Your task to perform on an android device: open app "DuckDuckGo Privacy Browser" (install if not already installed) Image 0: 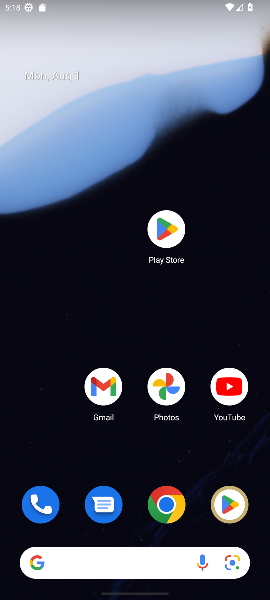
Step 0: press home button
Your task to perform on an android device: open app "DuckDuckGo Privacy Browser" (install if not already installed) Image 1: 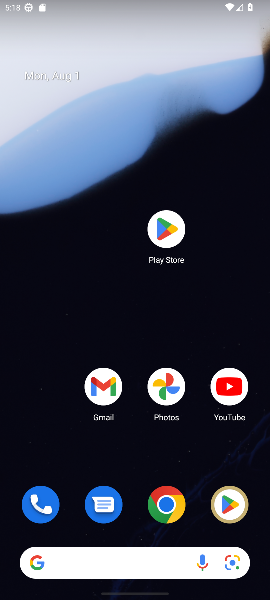
Step 1: click (165, 228)
Your task to perform on an android device: open app "DuckDuckGo Privacy Browser" (install if not already installed) Image 2: 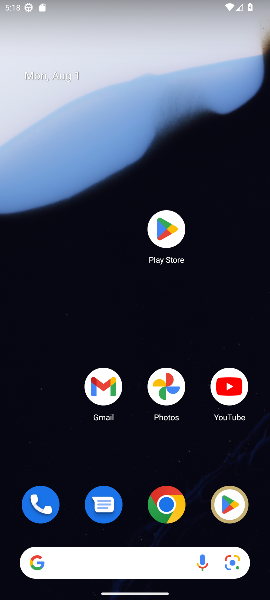
Step 2: click (165, 228)
Your task to perform on an android device: open app "DuckDuckGo Privacy Browser" (install if not already installed) Image 3: 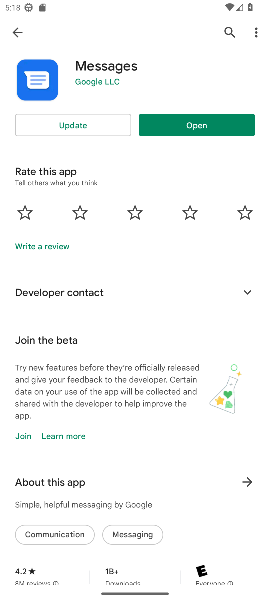
Step 3: click (227, 29)
Your task to perform on an android device: open app "DuckDuckGo Privacy Browser" (install if not already installed) Image 4: 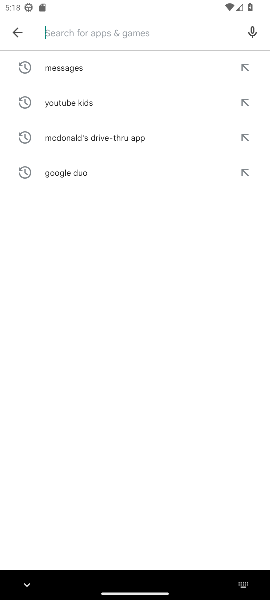
Step 4: type "DuckDuckGo Privacy Browser"
Your task to perform on an android device: open app "DuckDuckGo Privacy Browser" (install if not already installed) Image 5: 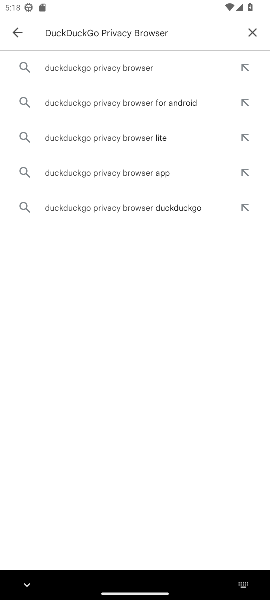
Step 5: click (143, 70)
Your task to perform on an android device: open app "DuckDuckGo Privacy Browser" (install if not already installed) Image 6: 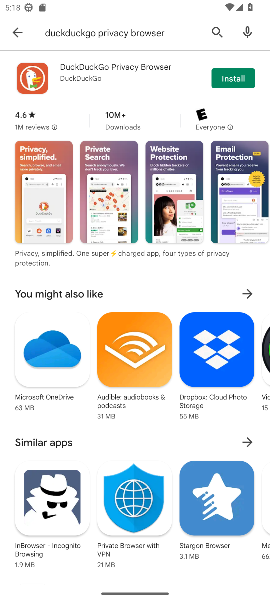
Step 6: click (223, 78)
Your task to perform on an android device: open app "DuckDuckGo Privacy Browser" (install if not already installed) Image 7: 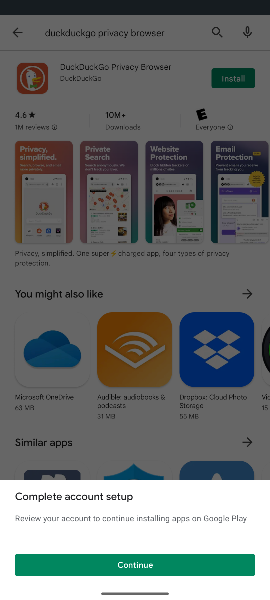
Step 7: click (130, 562)
Your task to perform on an android device: open app "DuckDuckGo Privacy Browser" (install if not already installed) Image 8: 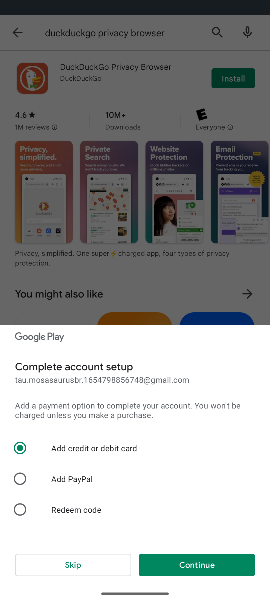
Step 8: click (80, 566)
Your task to perform on an android device: open app "DuckDuckGo Privacy Browser" (install if not already installed) Image 9: 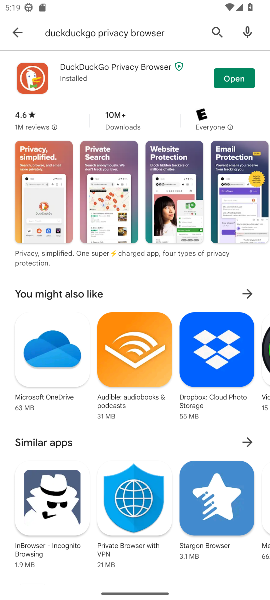
Step 9: click (240, 79)
Your task to perform on an android device: open app "DuckDuckGo Privacy Browser" (install if not already installed) Image 10: 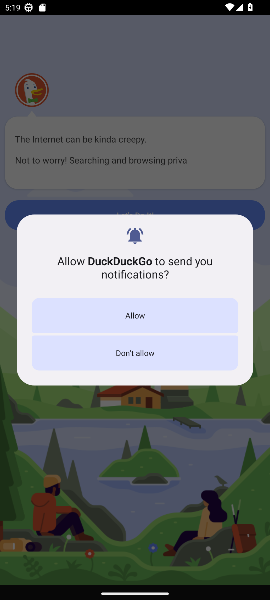
Step 10: click (166, 343)
Your task to perform on an android device: open app "DuckDuckGo Privacy Browser" (install if not already installed) Image 11: 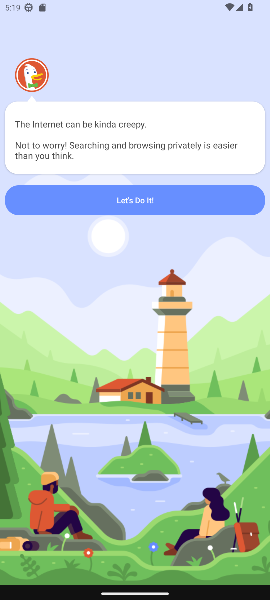
Step 11: task complete